Your task to perform on an android device: toggle pop-ups in chrome Image 0: 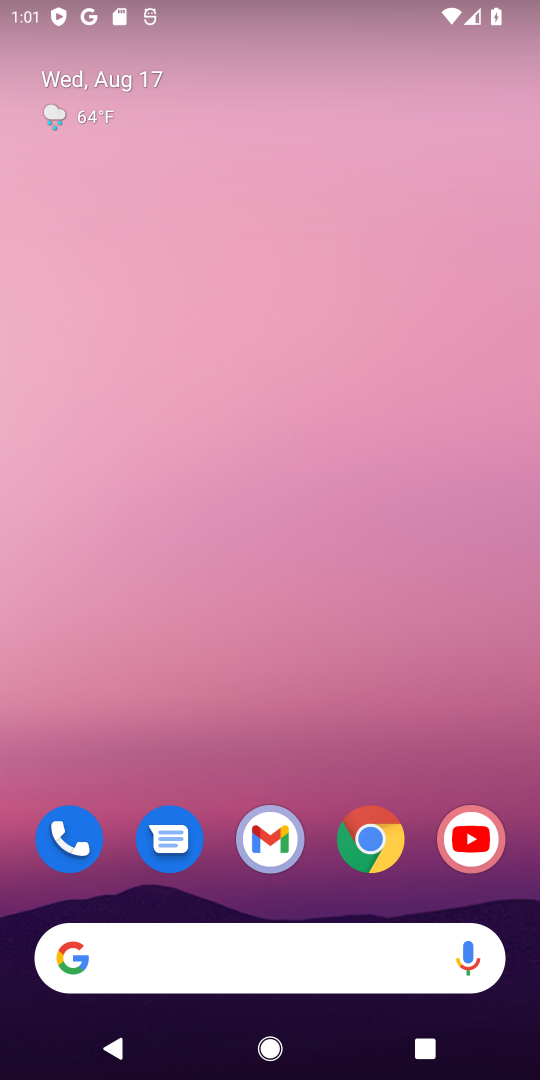
Step 0: click (374, 840)
Your task to perform on an android device: toggle pop-ups in chrome Image 1: 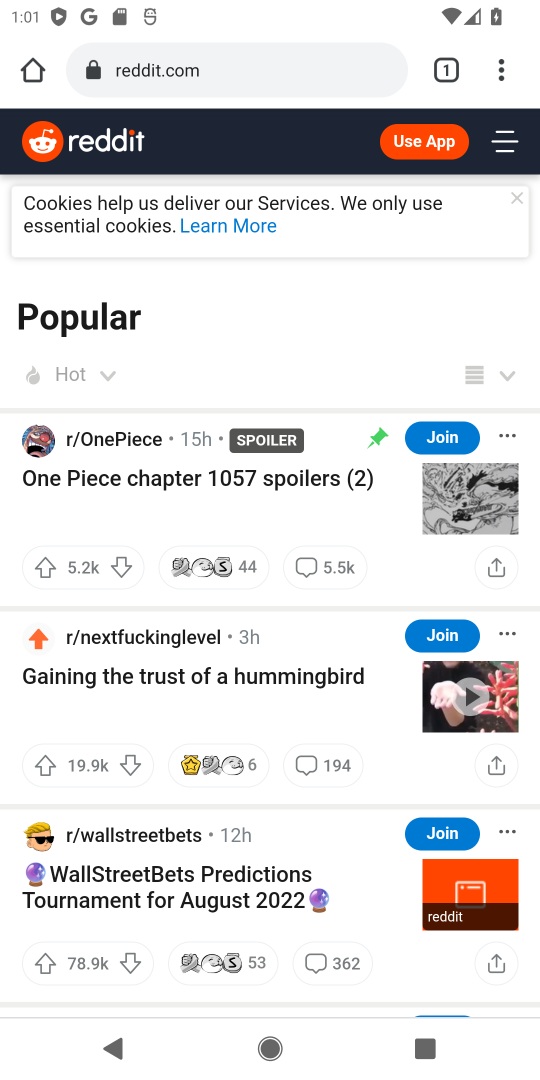
Step 1: drag from (502, 68) to (318, 792)
Your task to perform on an android device: toggle pop-ups in chrome Image 2: 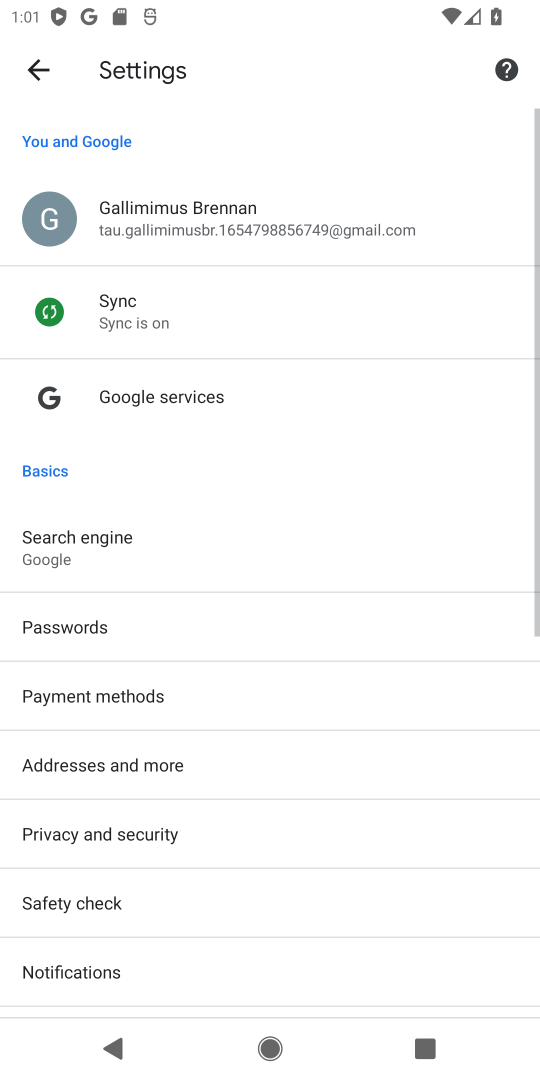
Step 2: drag from (204, 873) to (227, 675)
Your task to perform on an android device: toggle pop-ups in chrome Image 3: 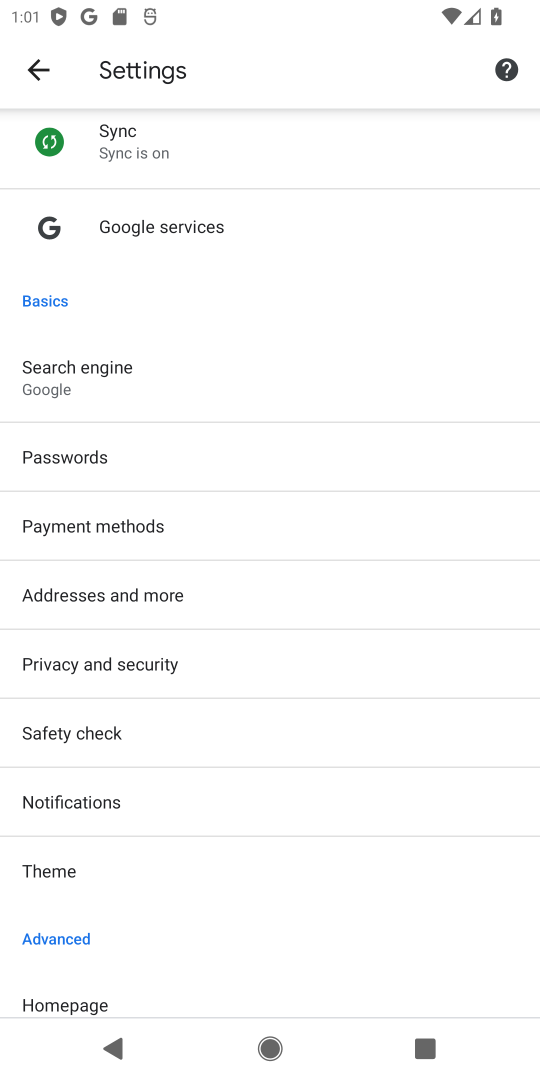
Step 3: drag from (130, 884) to (204, 727)
Your task to perform on an android device: toggle pop-ups in chrome Image 4: 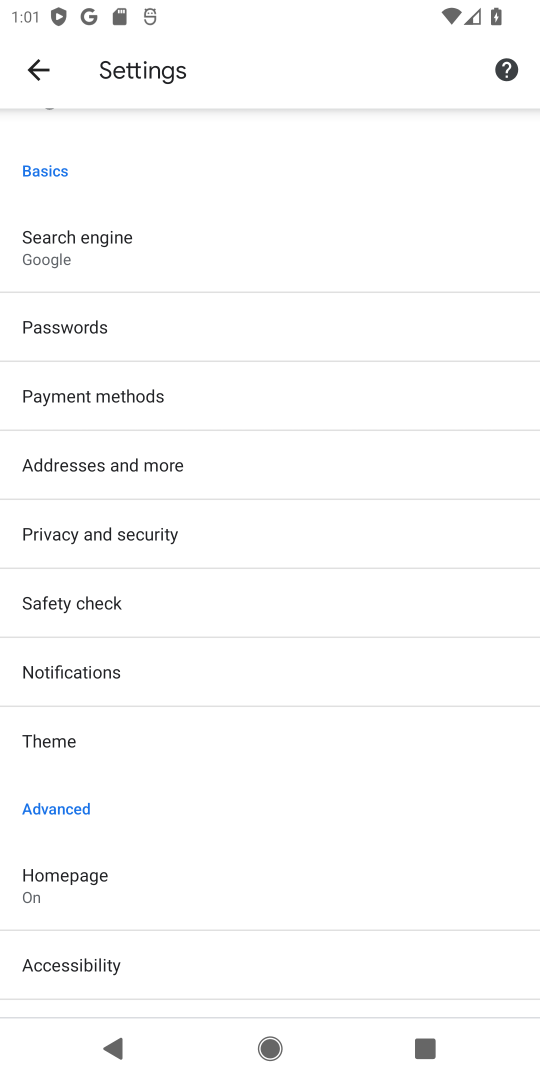
Step 4: drag from (176, 872) to (268, 695)
Your task to perform on an android device: toggle pop-ups in chrome Image 5: 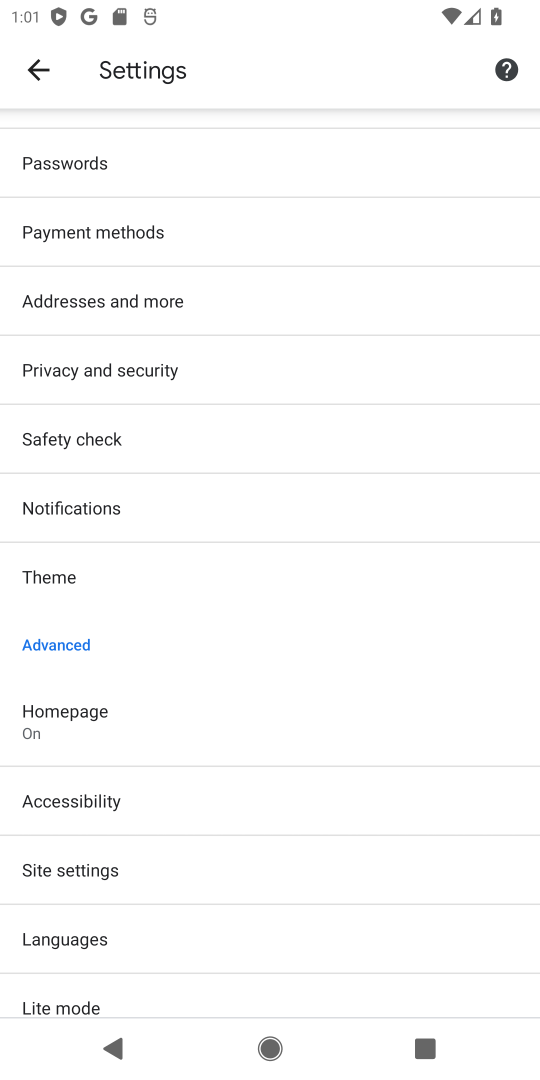
Step 5: drag from (164, 853) to (249, 718)
Your task to perform on an android device: toggle pop-ups in chrome Image 6: 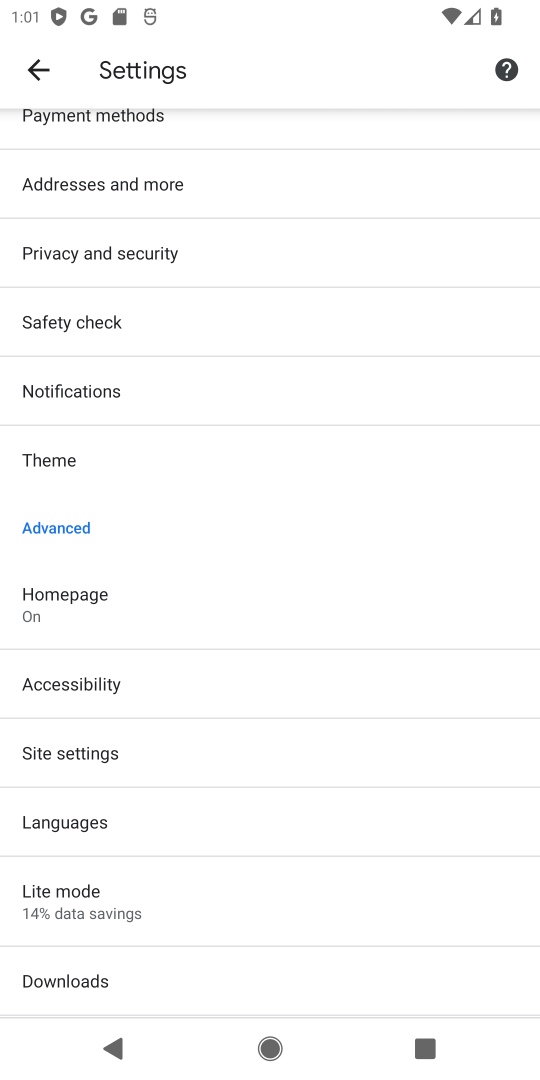
Step 6: click (114, 764)
Your task to perform on an android device: toggle pop-ups in chrome Image 7: 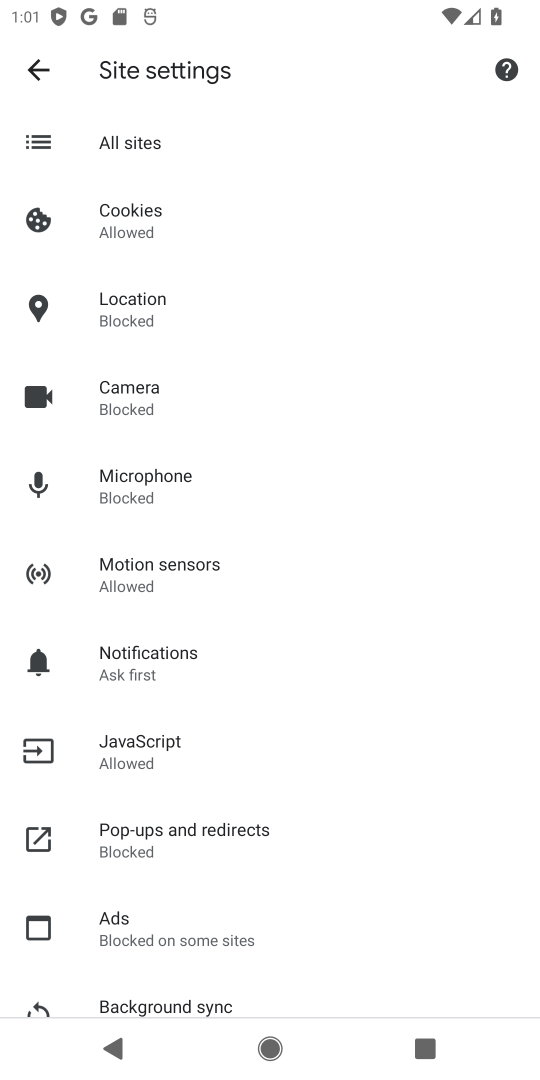
Step 7: click (187, 828)
Your task to perform on an android device: toggle pop-ups in chrome Image 8: 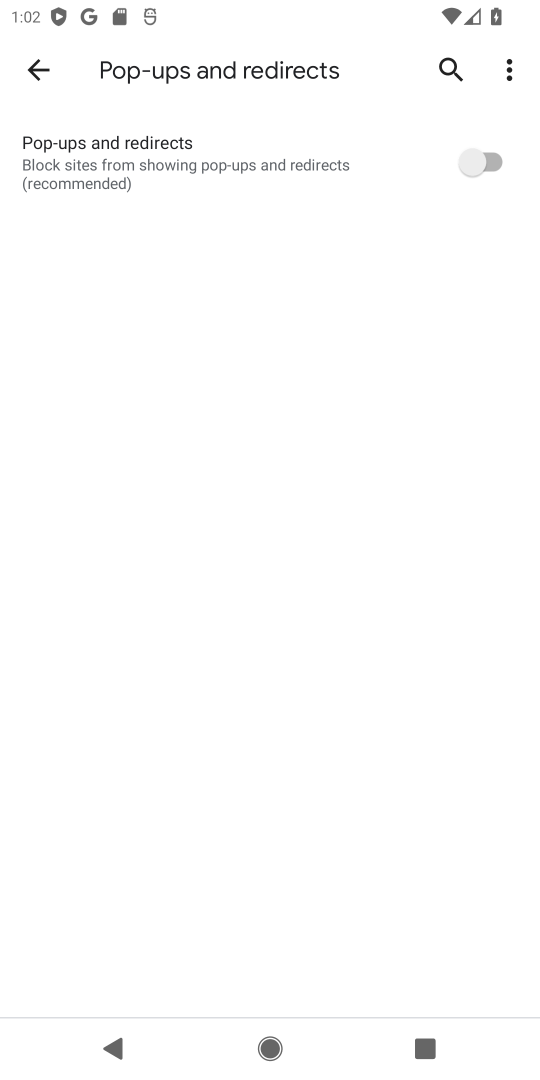
Step 8: click (482, 158)
Your task to perform on an android device: toggle pop-ups in chrome Image 9: 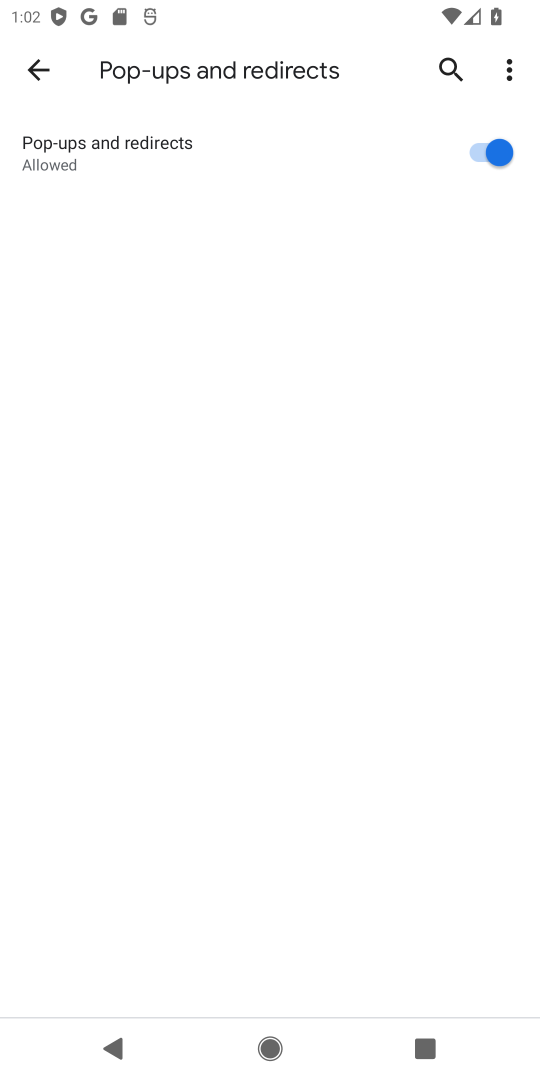
Step 9: task complete